Your task to perform on an android device: refresh tabs in the chrome app Image 0: 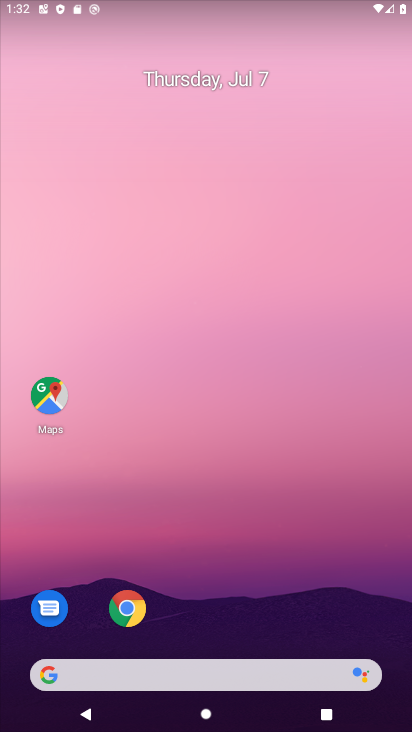
Step 0: drag from (367, 677) to (338, 4)
Your task to perform on an android device: refresh tabs in the chrome app Image 1: 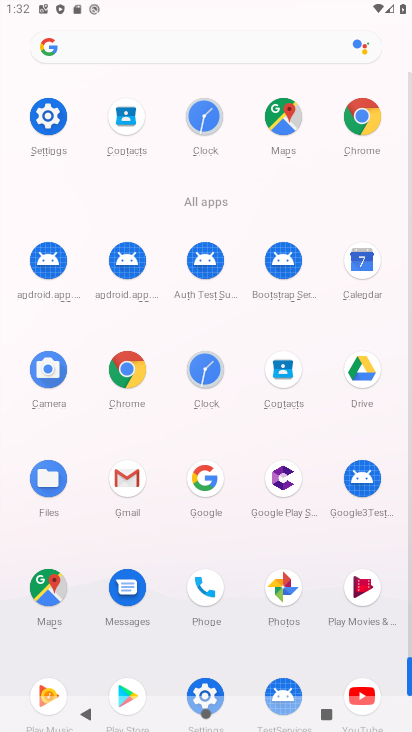
Step 1: click (126, 371)
Your task to perform on an android device: refresh tabs in the chrome app Image 2: 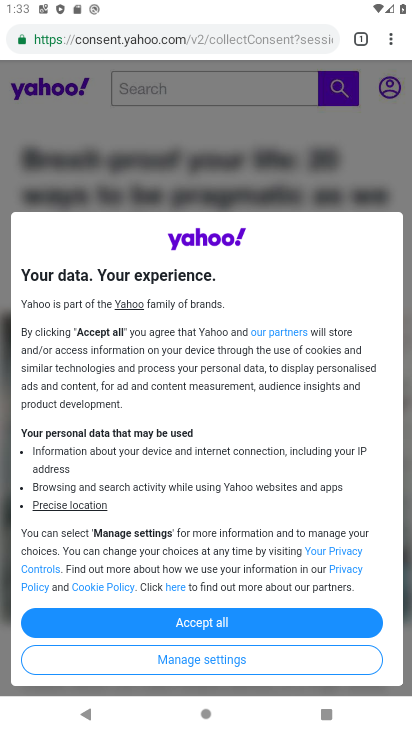
Step 2: click (390, 38)
Your task to perform on an android device: refresh tabs in the chrome app Image 3: 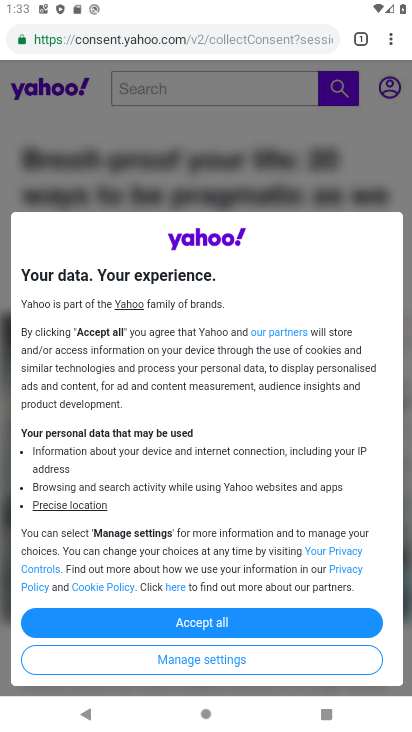
Step 3: task complete